Your task to perform on an android device: Search for a 3d printer on aliexpress Image 0: 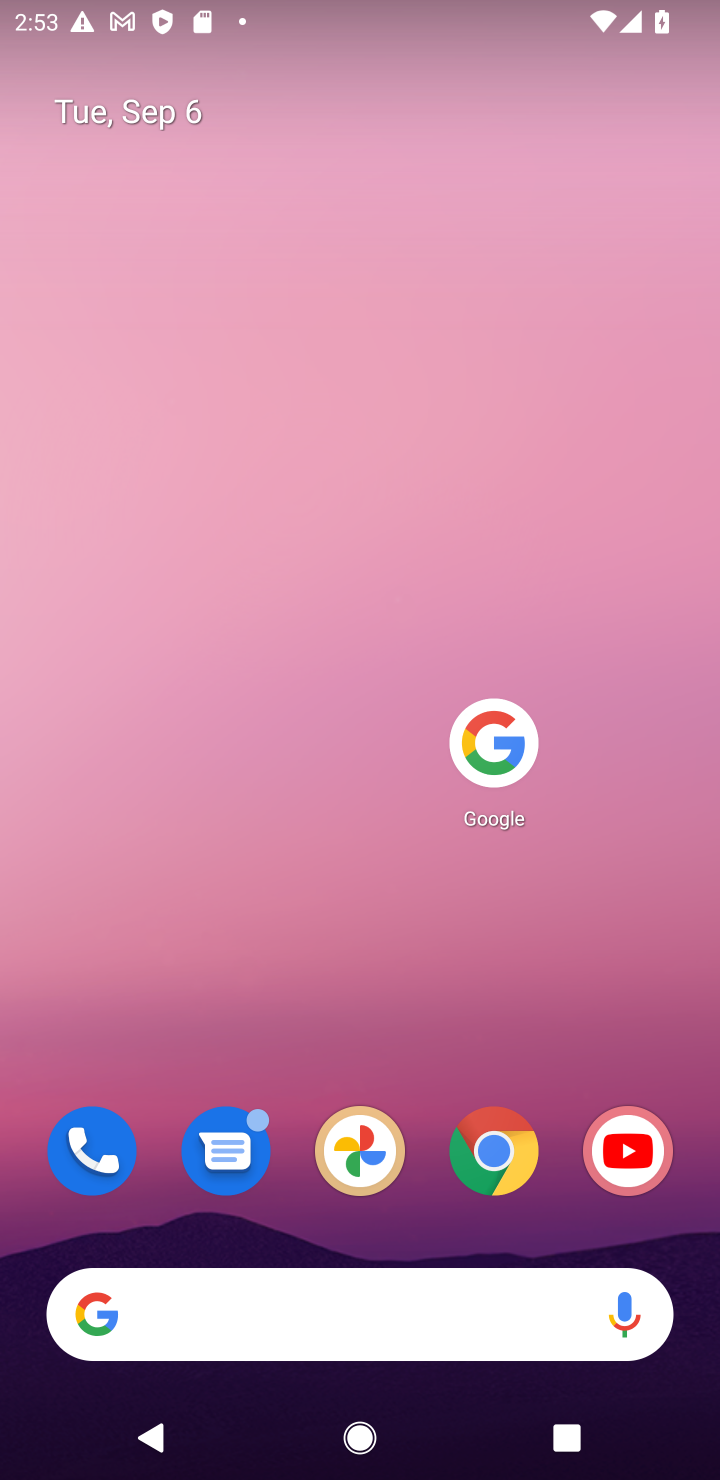
Step 0: click (523, 741)
Your task to perform on an android device: Search for a 3d printer on aliexpress Image 1: 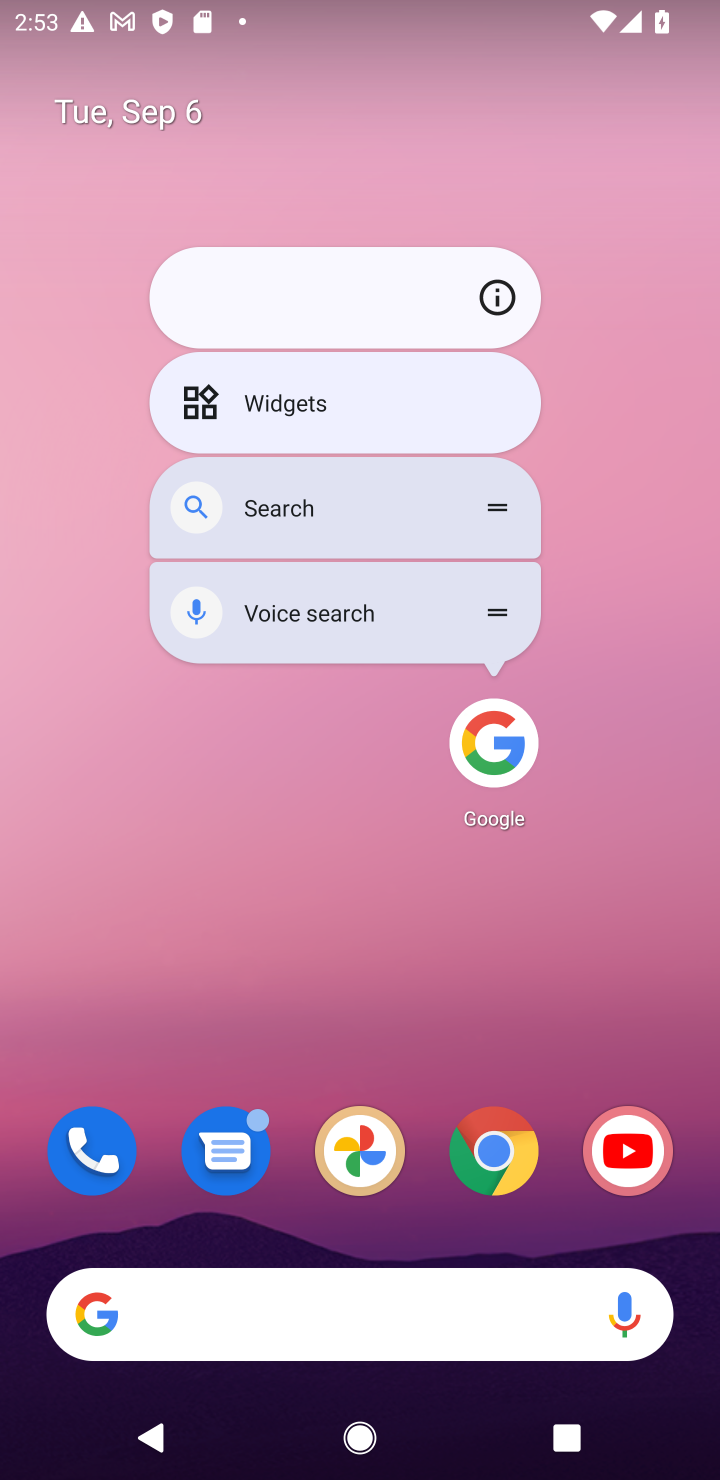
Step 1: click (500, 742)
Your task to perform on an android device: Search for a 3d printer on aliexpress Image 2: 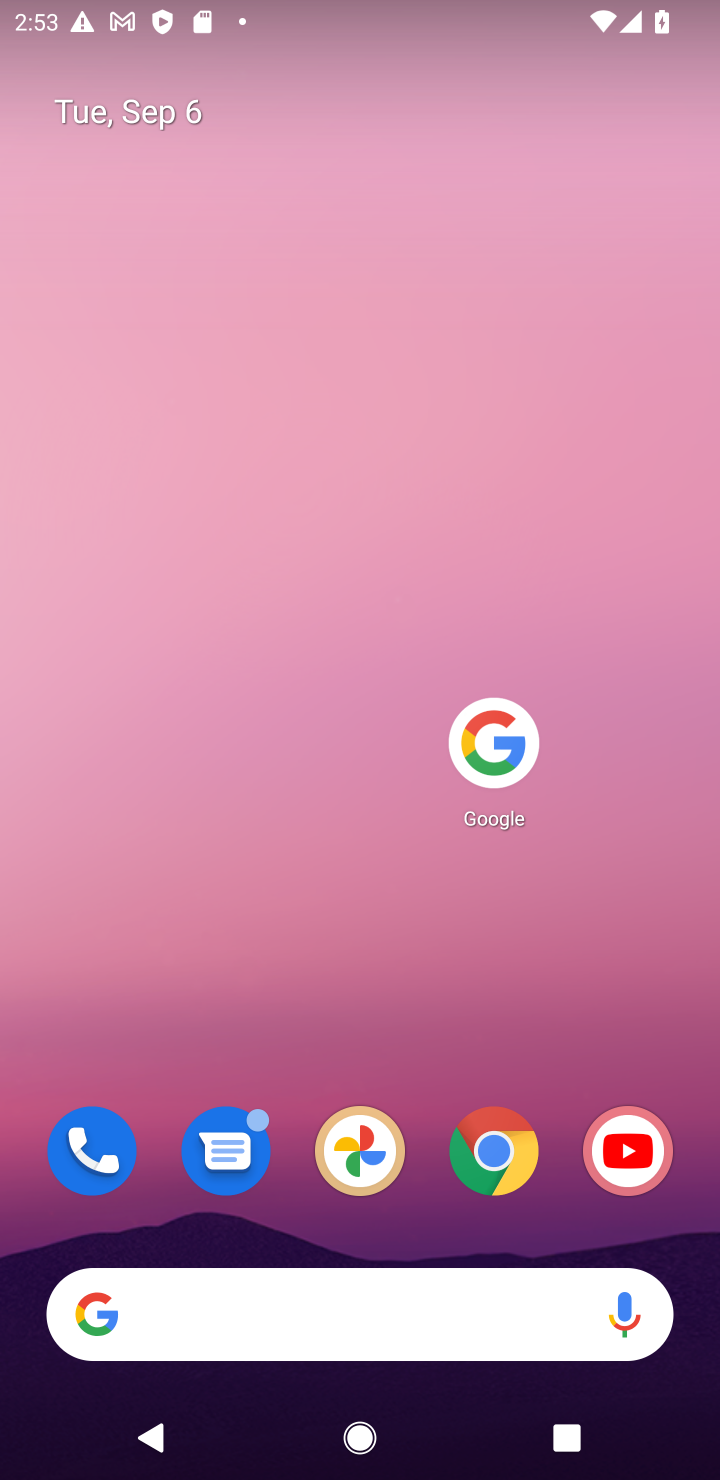
Step 2: click (500, 742)
Your task to perform on an android device: Search for a 3d printer on aliexpress Image 3: 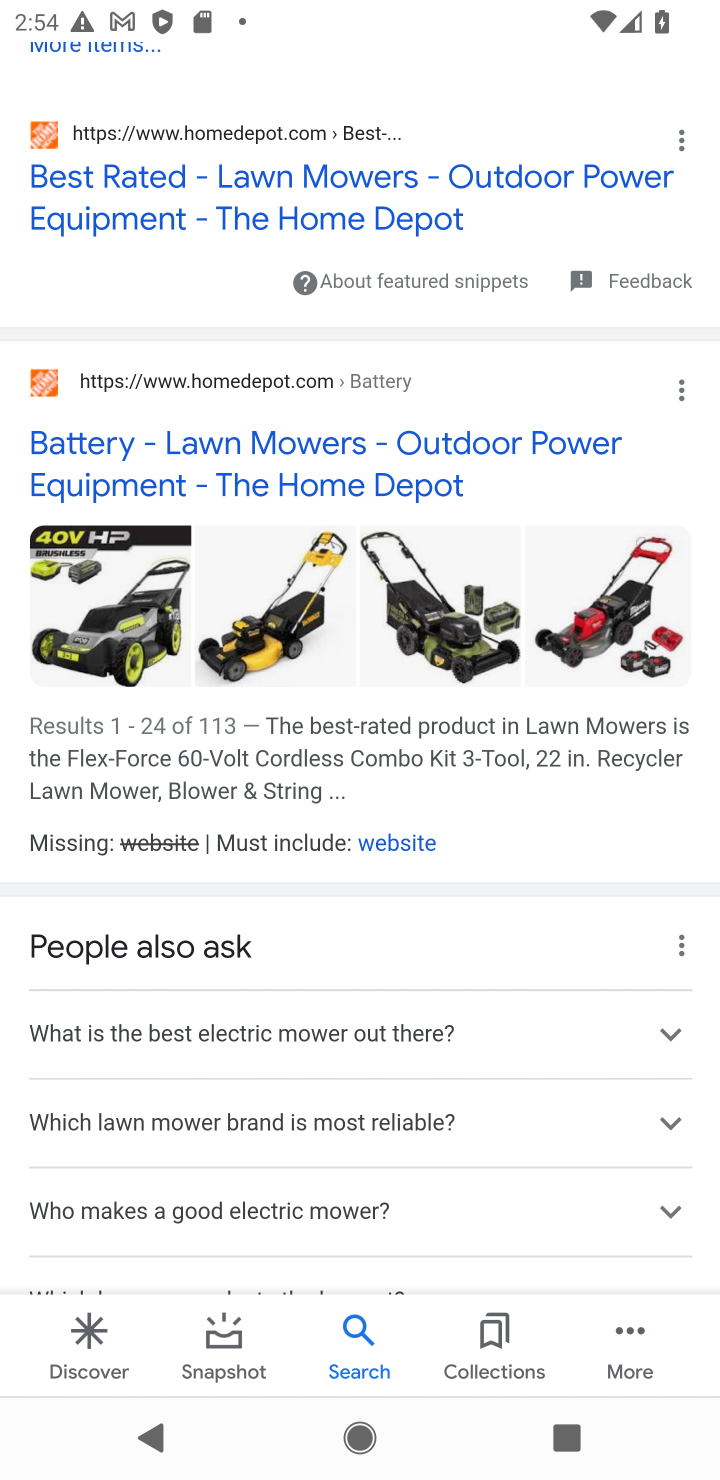
Step 3: drag from (266, 290) to (276, 1014)
Your task to perform on an android device: Search for a 3d printer on aliexpress Image 4: 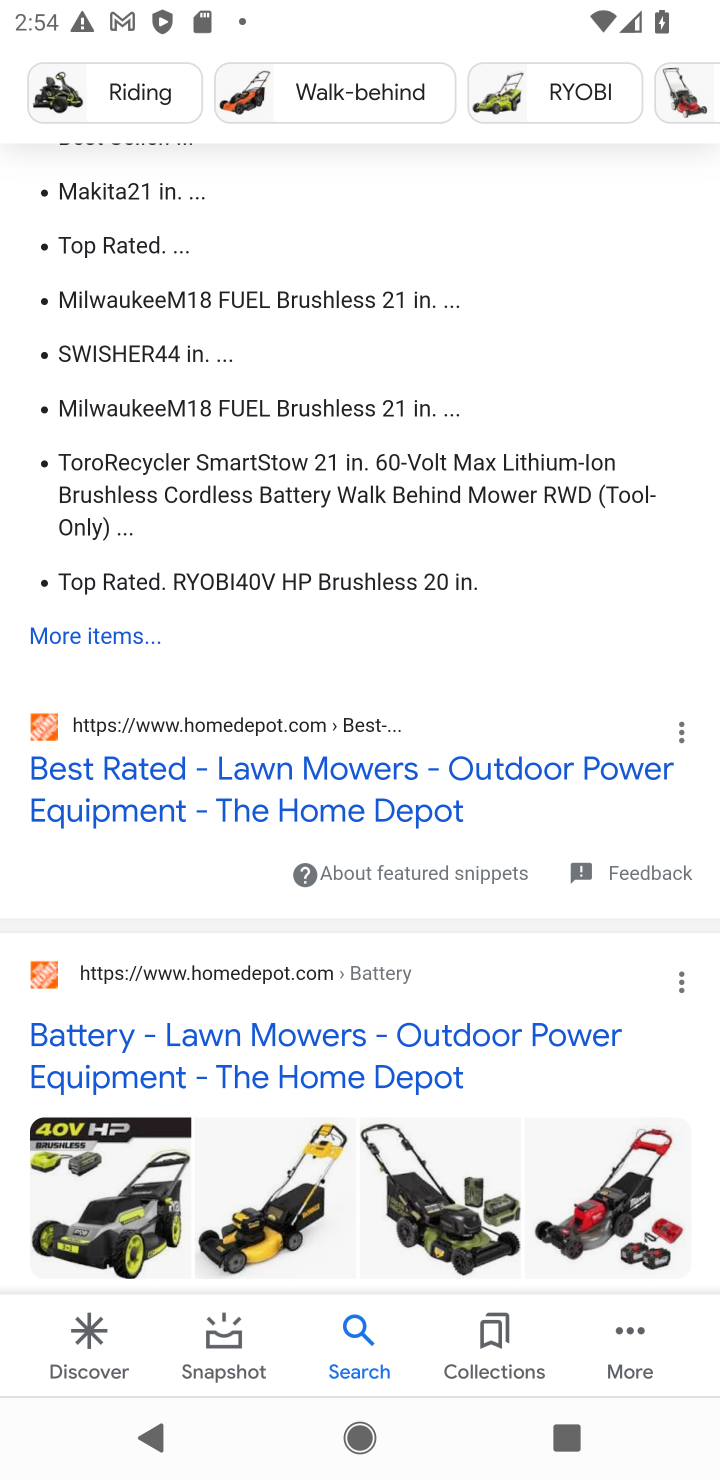
Step 4: click (520, 622)
Your task to perform on an android device: Search for a 3d printer on aliexpress Image 5: 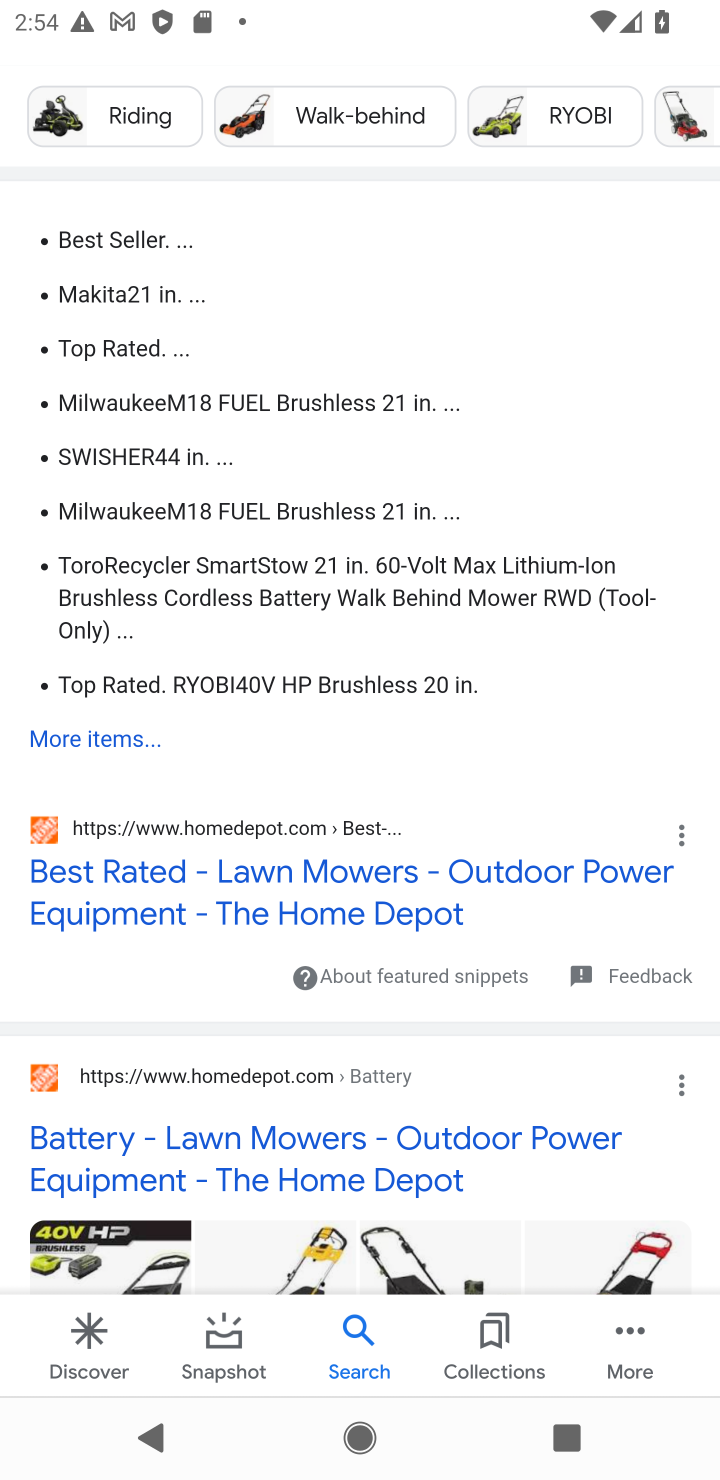
Step 5: drag from (481, 1011) to (493, 1162)
Your task to perform on an android device: Search for a 3d printer on aliexpress Image 6: 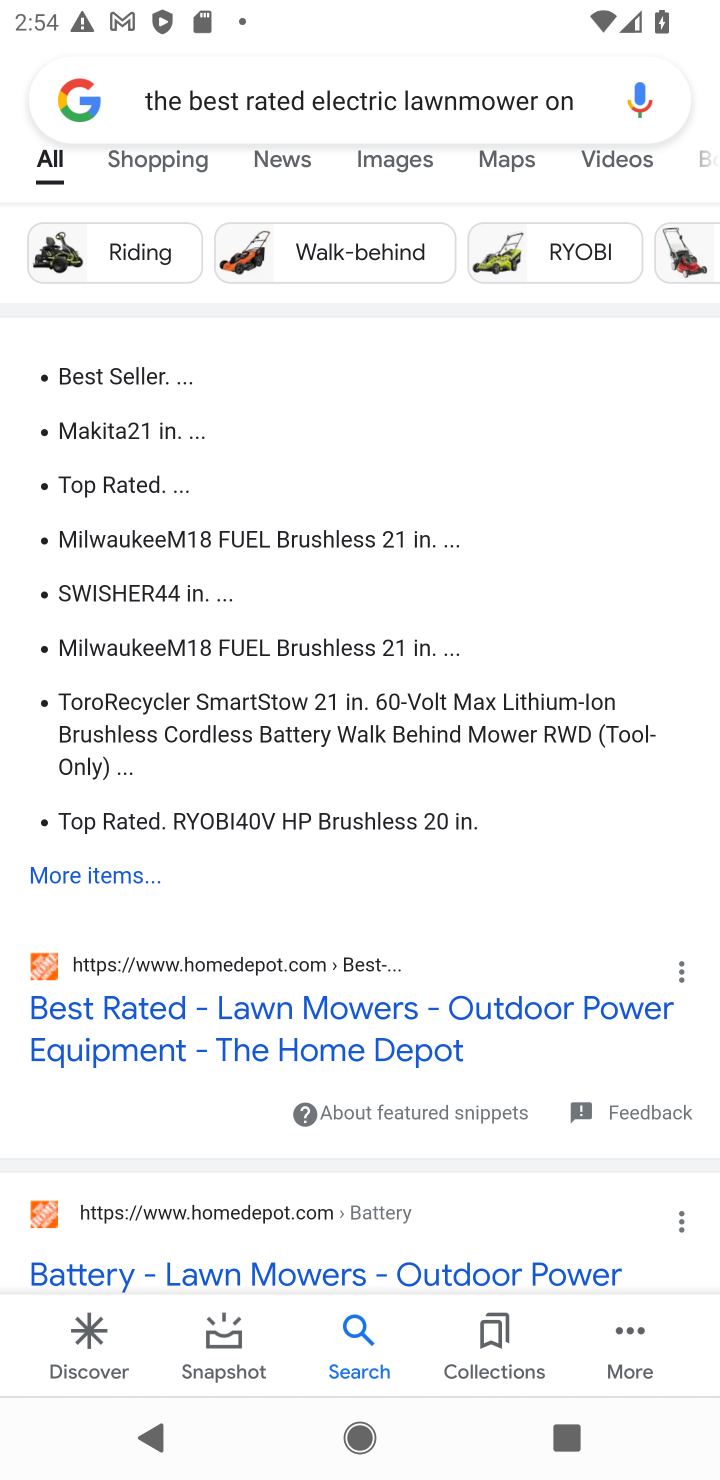
Step 6: drag from (417, 667) to (426, 1025)
Your task to perform on an android device: Search for a 3d printer on aliexpress Image 7: 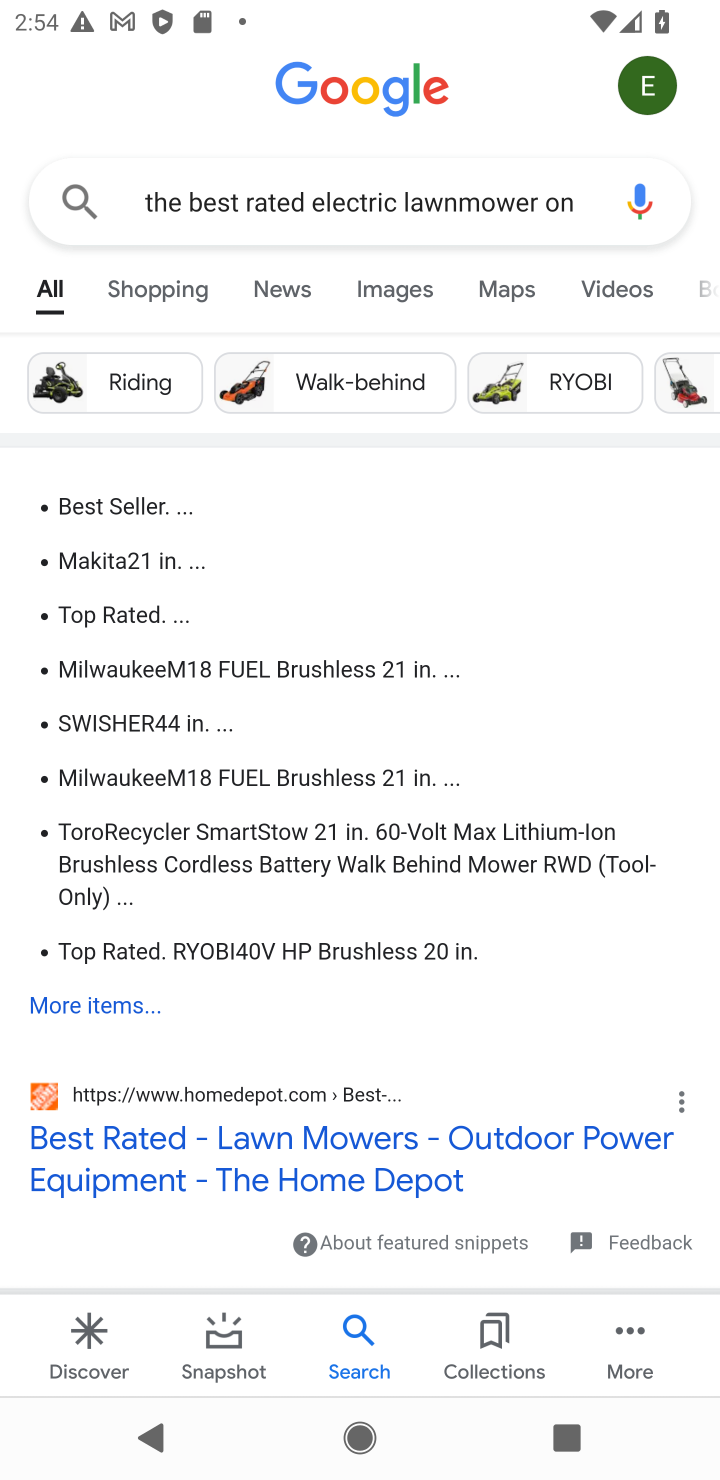
Step 7: click (503, 191)
Your task to perform on an android device: Search for a 3d printer on aliexpress Image 8: 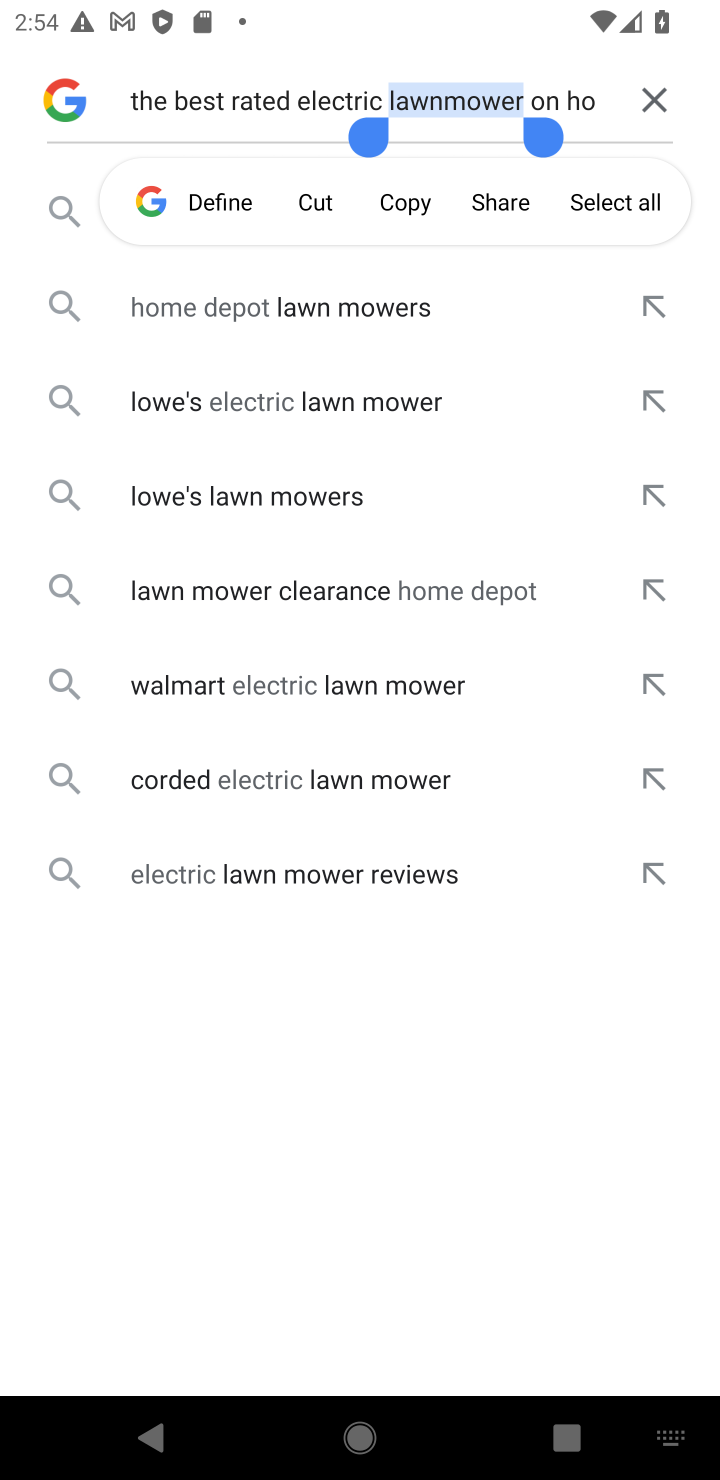
Step 8: click (644, 93)
Your task to perform on an android device: Search for a 3d printer on aliexpress Image 9: 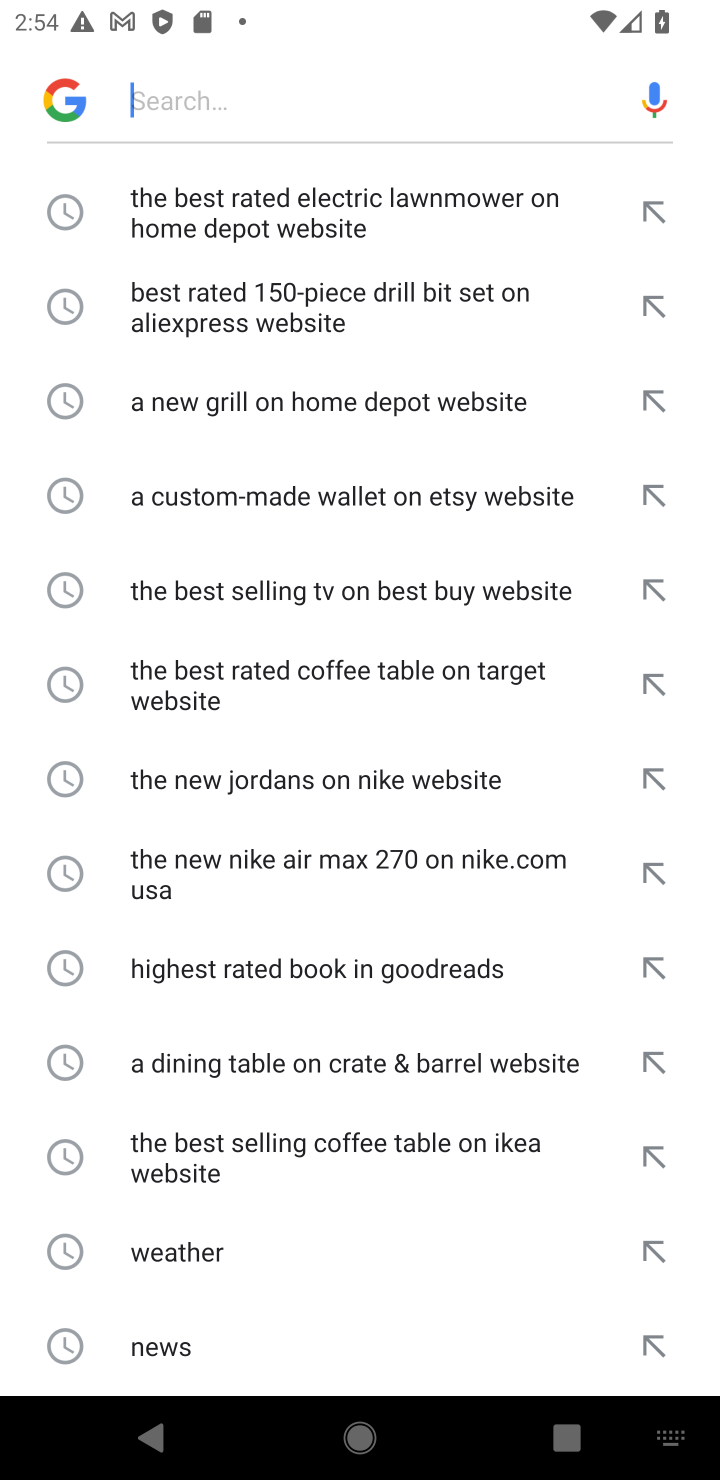
Step 9: click (337, 101)
Your task to perform on an android device: Search for a 3d printer on aliexpress Image 10: 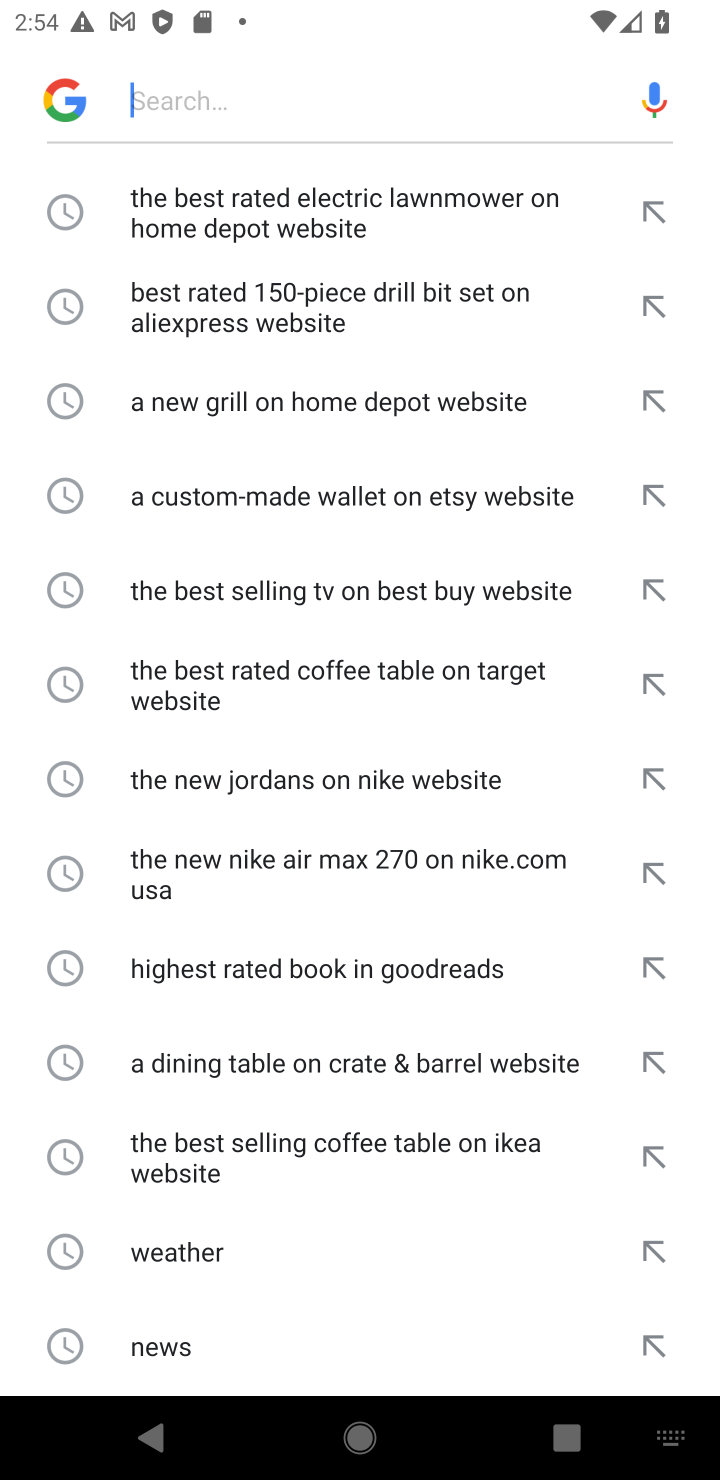
Step 10: type "3d printer on aliexpress "
Your task to perform on an android device: Search for a 3d printer on aliexpress Image 11: 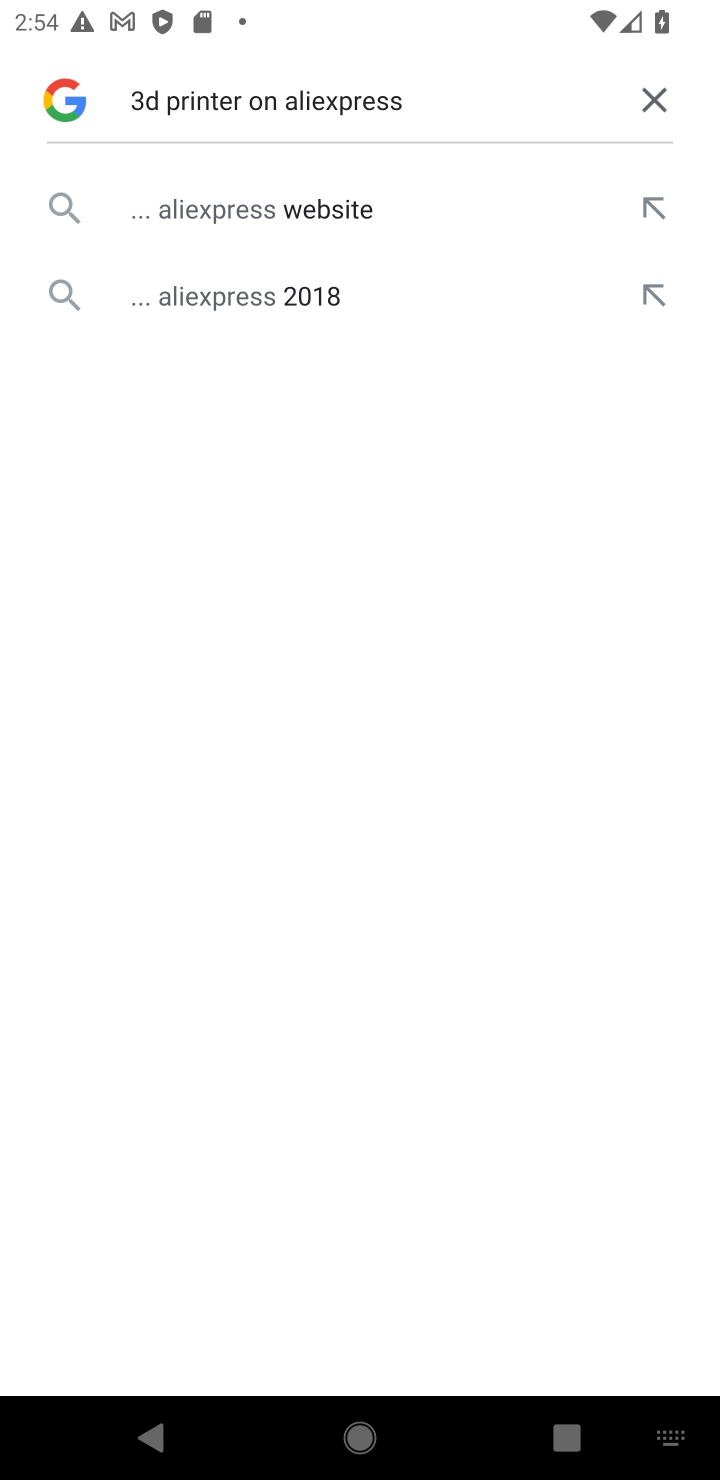
Step 11: click (292, 200)
Your task to perform on an android device: Search for a 3d printer on aliexpress Image 12: 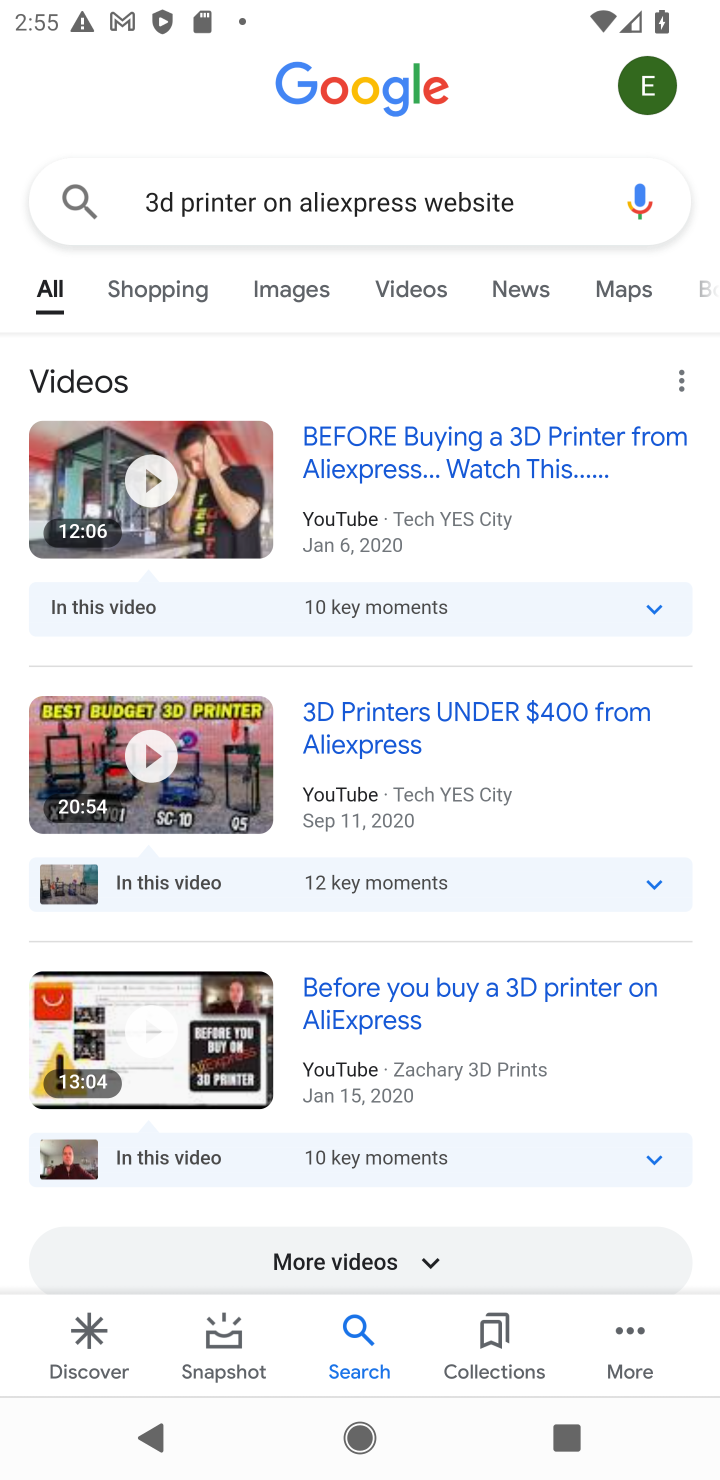
Step 12: click (515, 192)
Your task to perform on an android device: Search for a 3d printer on aliexpress Image 13: 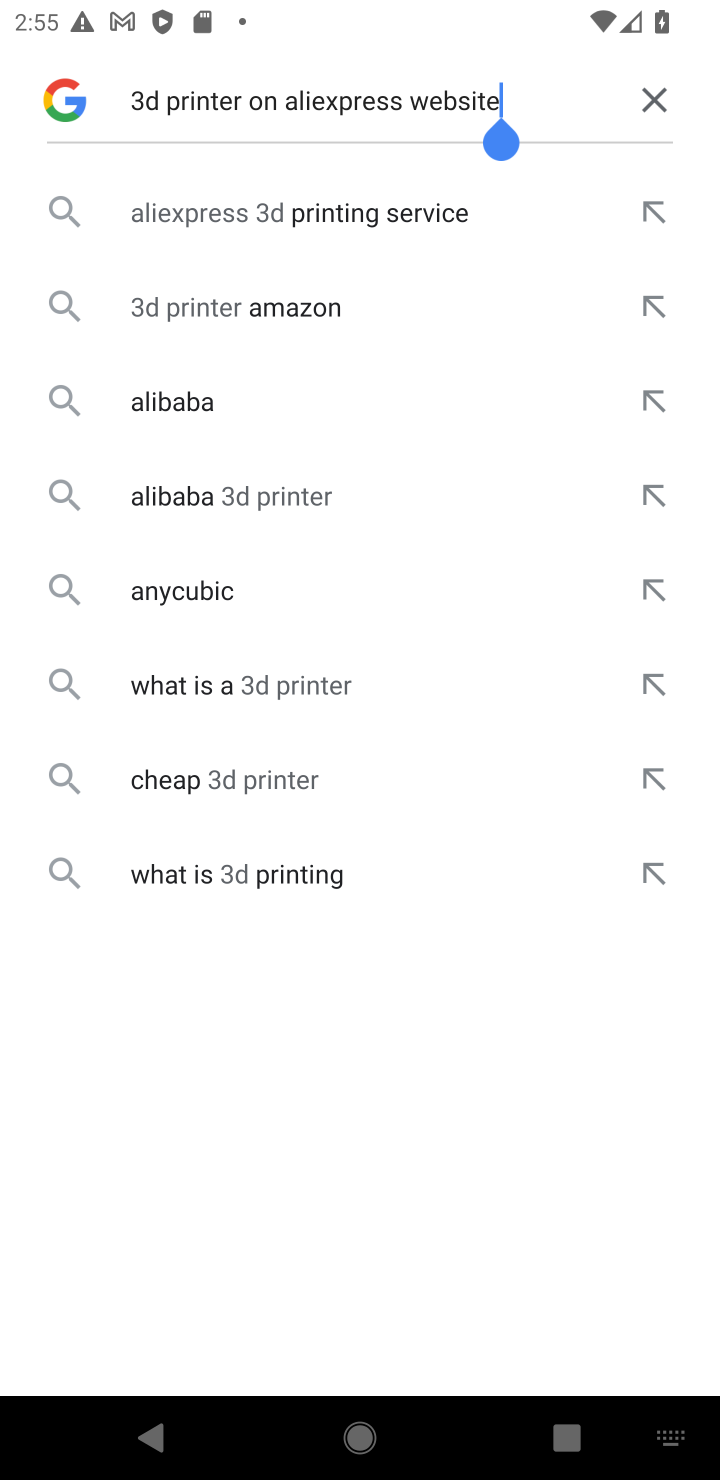
Step 13: click (240, 310)
Your task to perform on an android device: Search for a 3d printer on aliexpress Image 14: 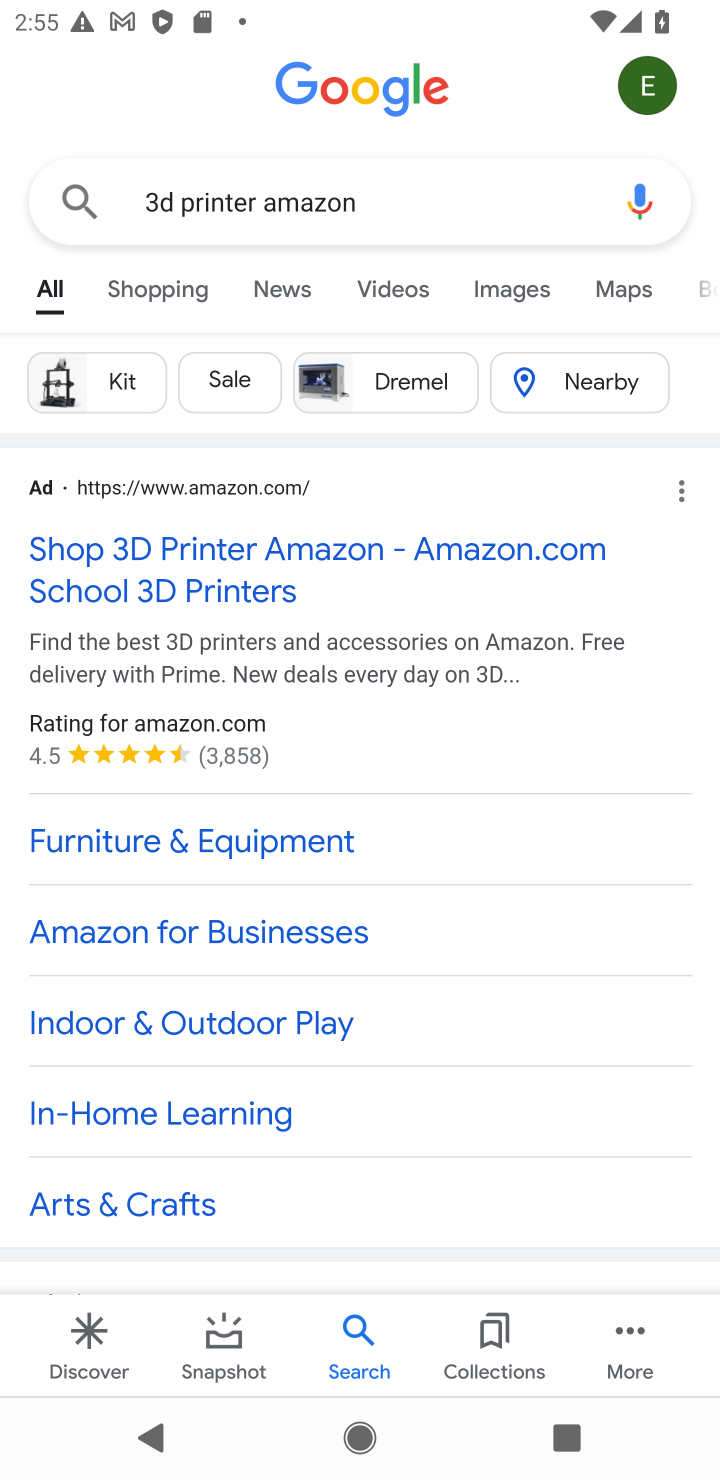
Step 14: task complete